Your task to perform on an android device: turn vacation reply on in the gmail app Image 0: 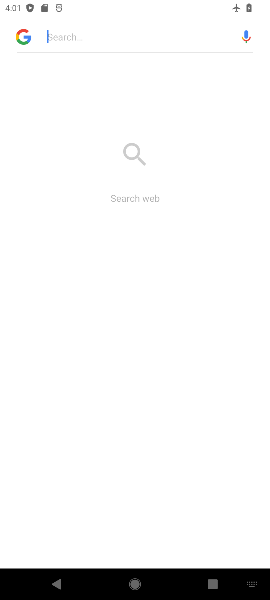
Step 0: press home button
Your task to perform on an android device: turn vacation reply on in the gmail app Image 1: 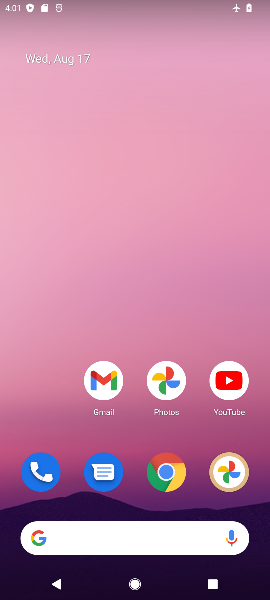
Step 1: click (114, 389)
Your task to perform on an android device: turn vacation reply on in the gmail app Image 2: 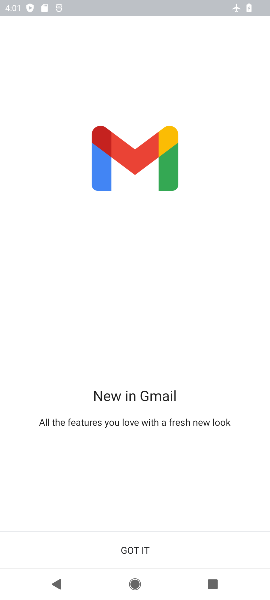
Step 2: click (157, 537)
Your task to perform on an android device: turn vacation reply on in the gmail app Image 3: 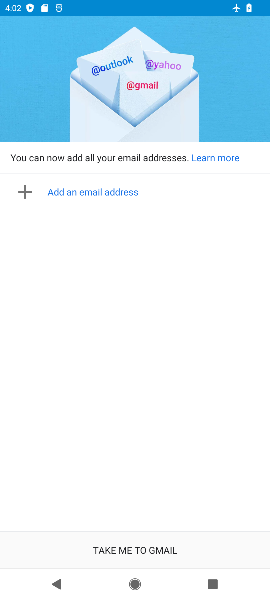
Step 3: task complete